Your task to perform on an android device: Do I have any events this weekend? Image 0: 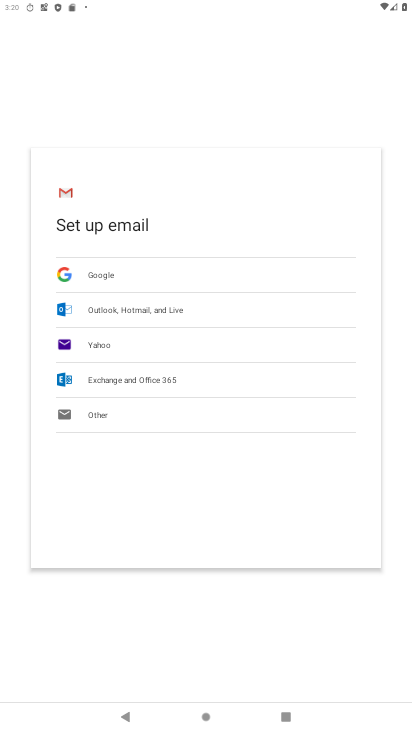
Step 0: press home button
Your task to perform on an android device: Do I have any events this weekend? Image 1: 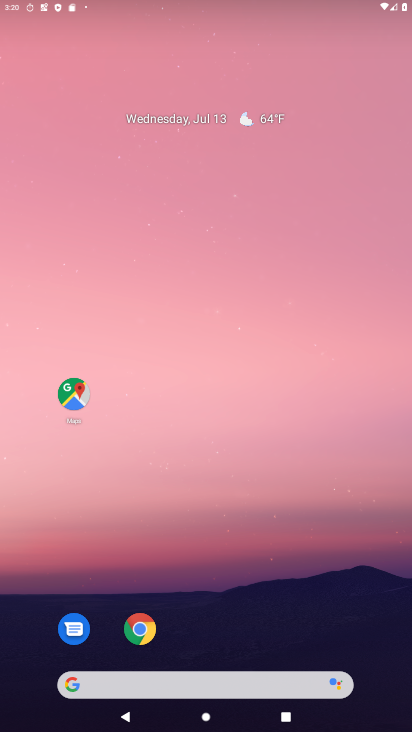
Step 1: drag from (325, 708) to (303, 102)
Your task to perform on an android device: Do I have any events this weekend? Image 2: 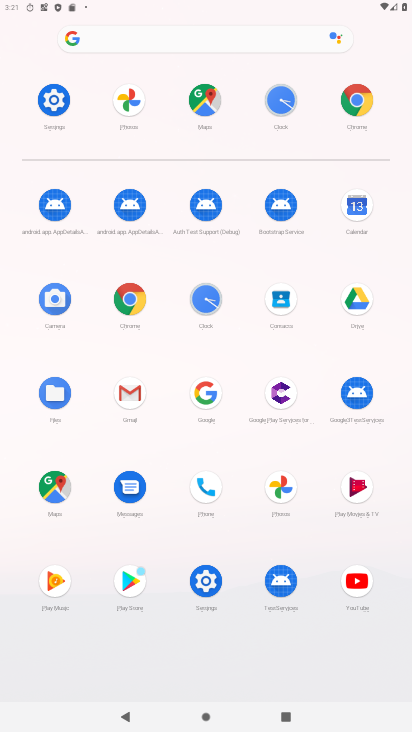
Step 2: click (365, 207)
Your task to perform on an android device: Do I have any events this weekend? Image 3: 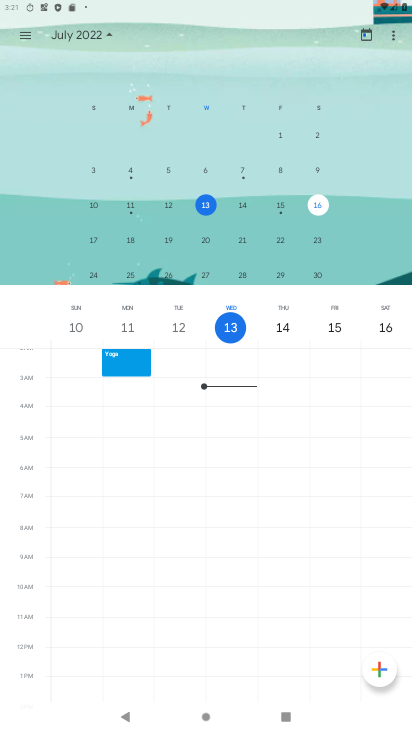
Step 3: click (317, 205)
Your task to perform on an android device: Do I have any events this weekend? Image 4: 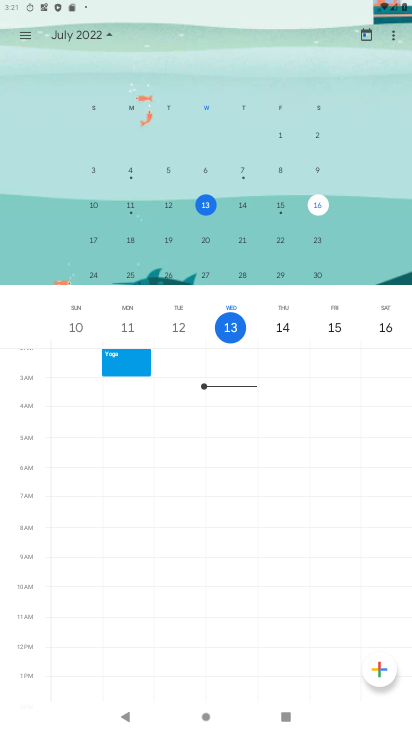
Step 4: task complete